Your task to perform on an android device: choose inbox layout in the gmail app Image 0: 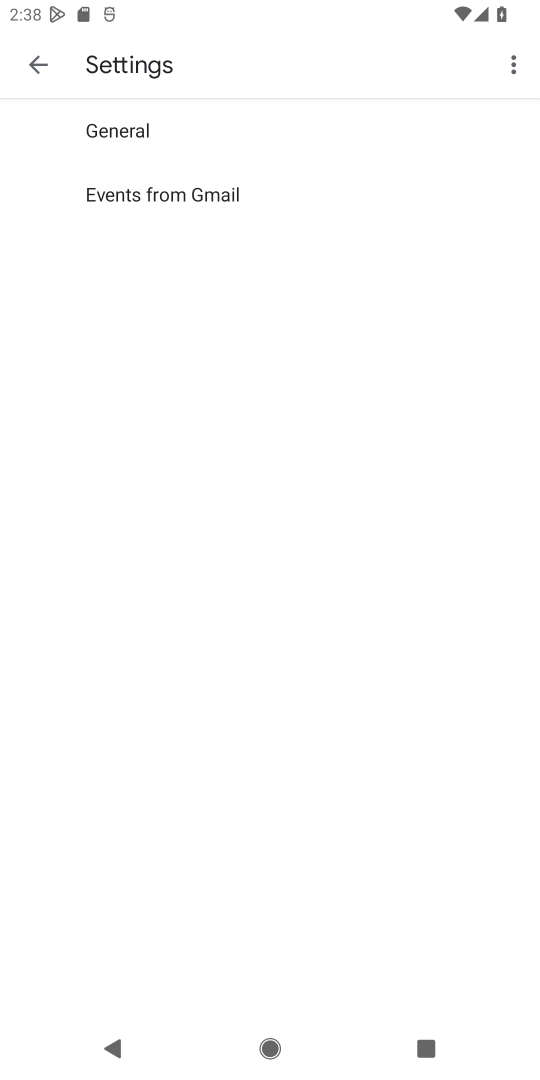
Step 0: press home button
Your task to perform on an android device: choose inbox layout in the gmail app Image 1: 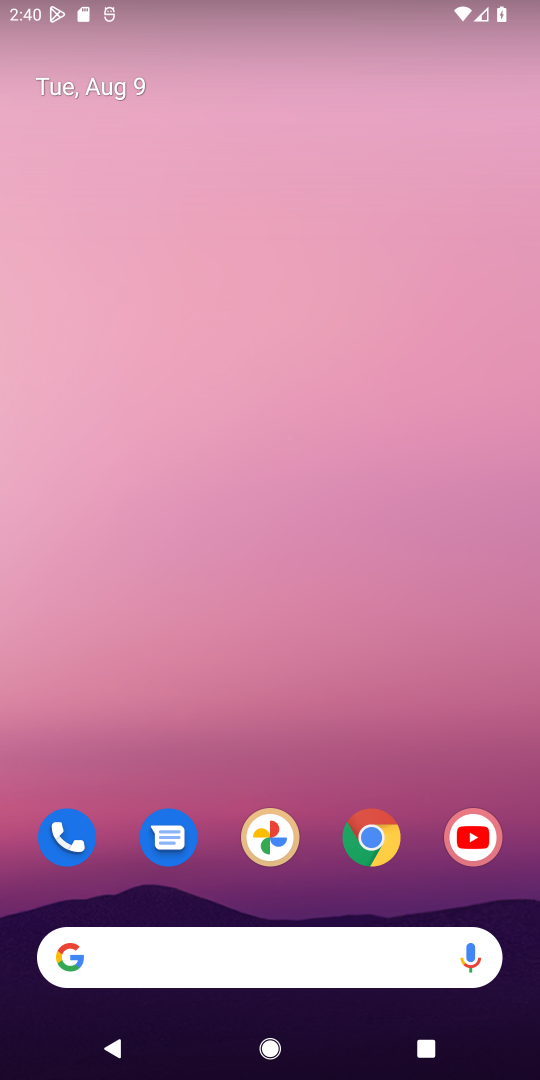
Step 1: drag from (284, 786) to (400, 179)
Your task to perform on an android device: choose inbox layout in the gmail app Image 2: 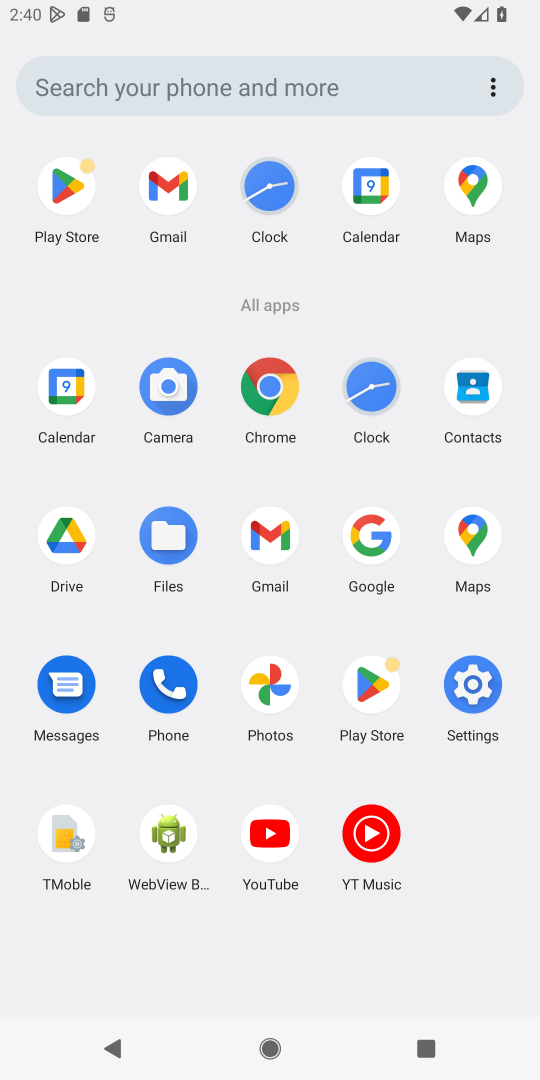
Step 2: click (263, 523)
Your task to perform on an android device: choose inbox layout in the gmail app Image 3: 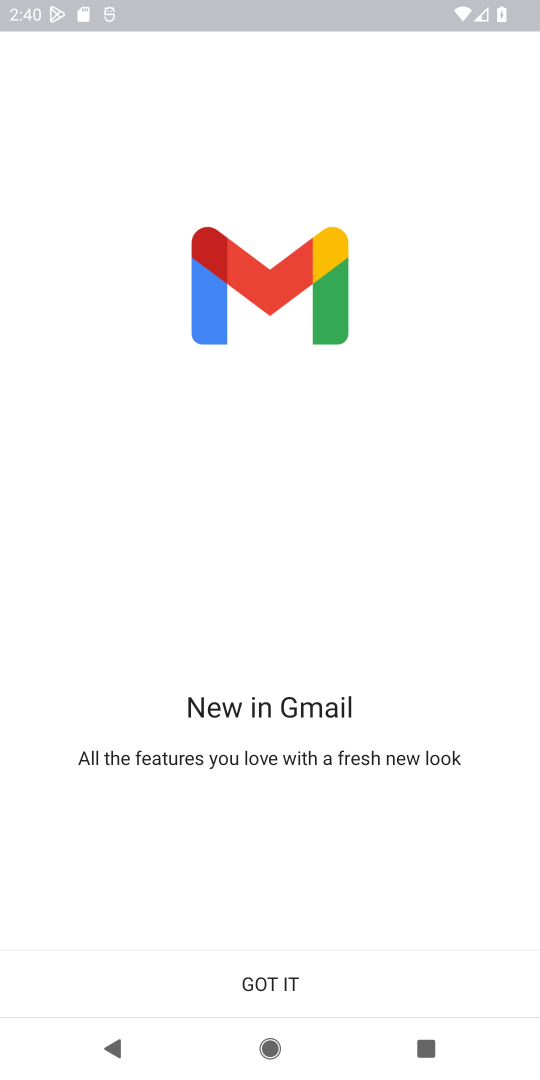
Step 3: click (243, 963)
Your task to perform on an android device: choose inbox layout in the gmail app Image 4: 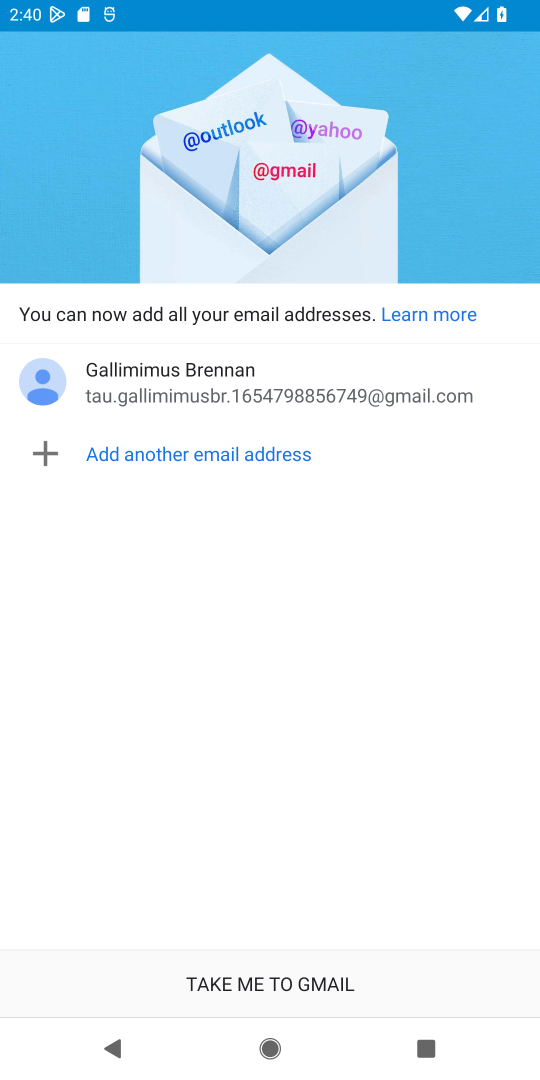
Step 4: click (250, 984)
Your task to perform on an android device: choose inbox layout in the gmail app Image 5: 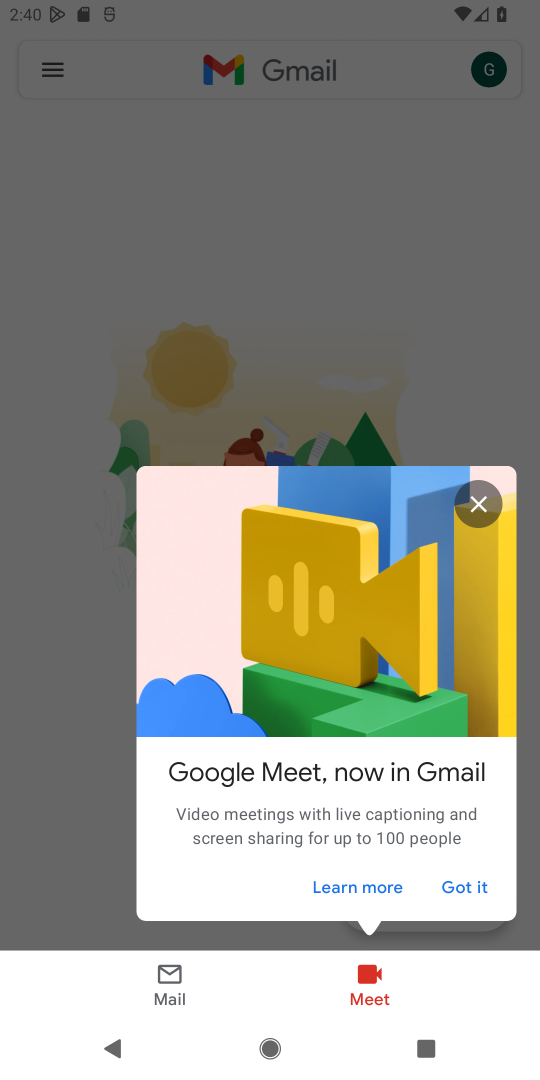
Step 5: click (50, 61)
Your task to perform on an android device: choose inbox layout in the gmail app Image 6: 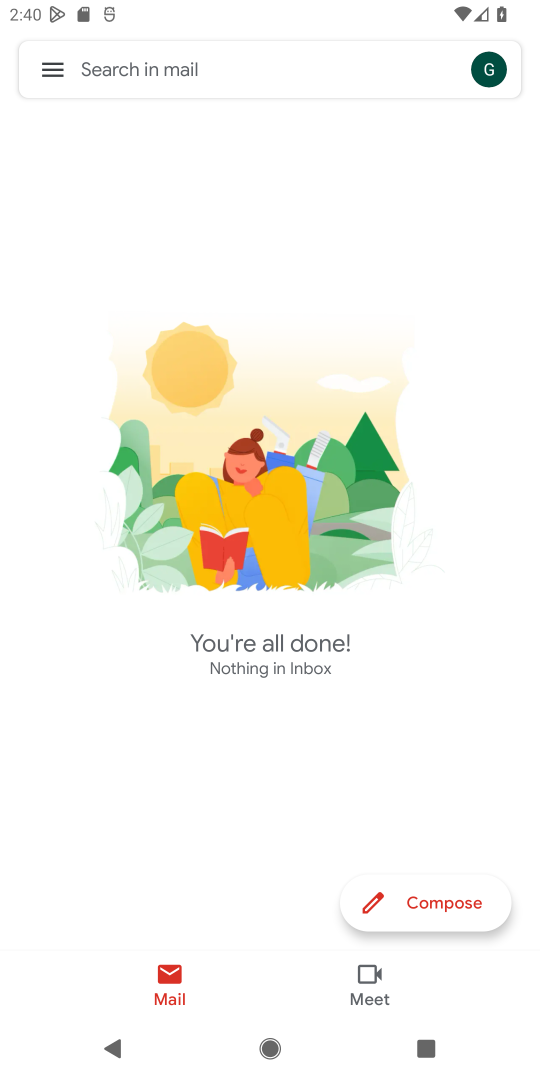
Step 6: click (50, 61)
Your task to perform on an android device: choose inbox layout in the gmail app Image 7: 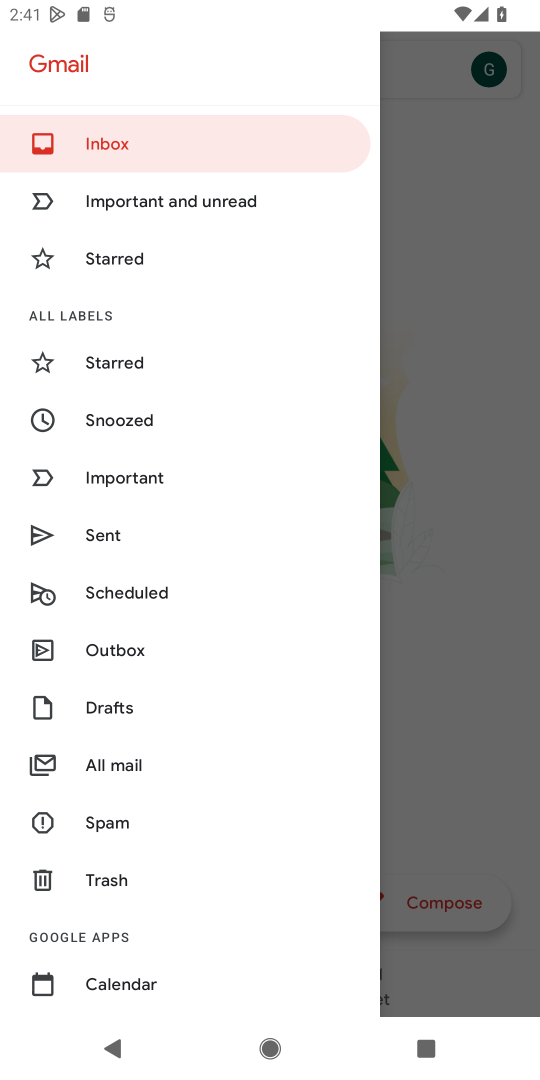
Step 7: drag from (196, 864) to (156, 356)
Your task to perform on an android device: choose inbox layout in the gmail app Image 8: 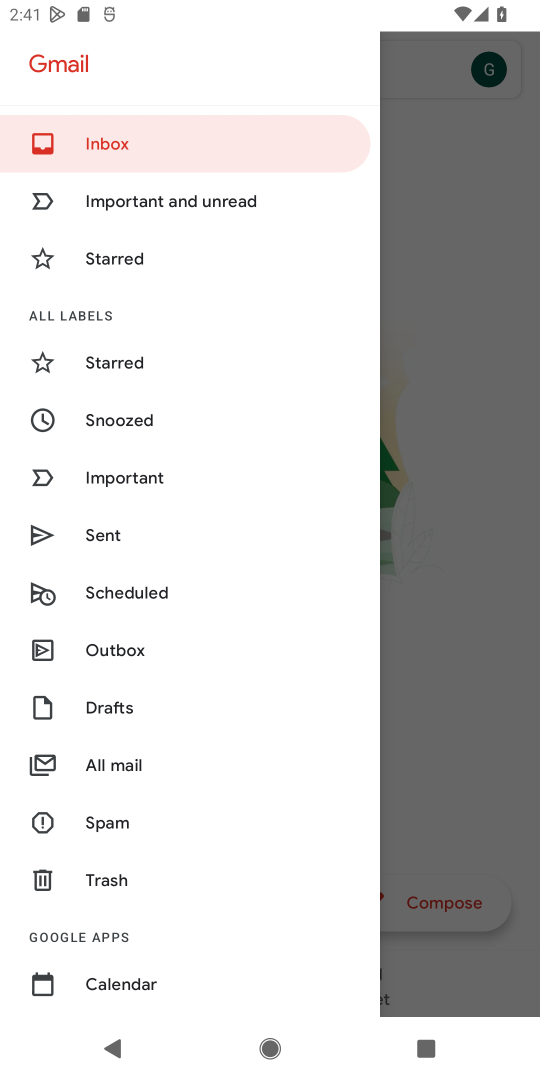
Step 8: drag from (189, 911) to (269, 358)
Your task to perform on an android device: choose inbox layout in the gmail app Image 9: 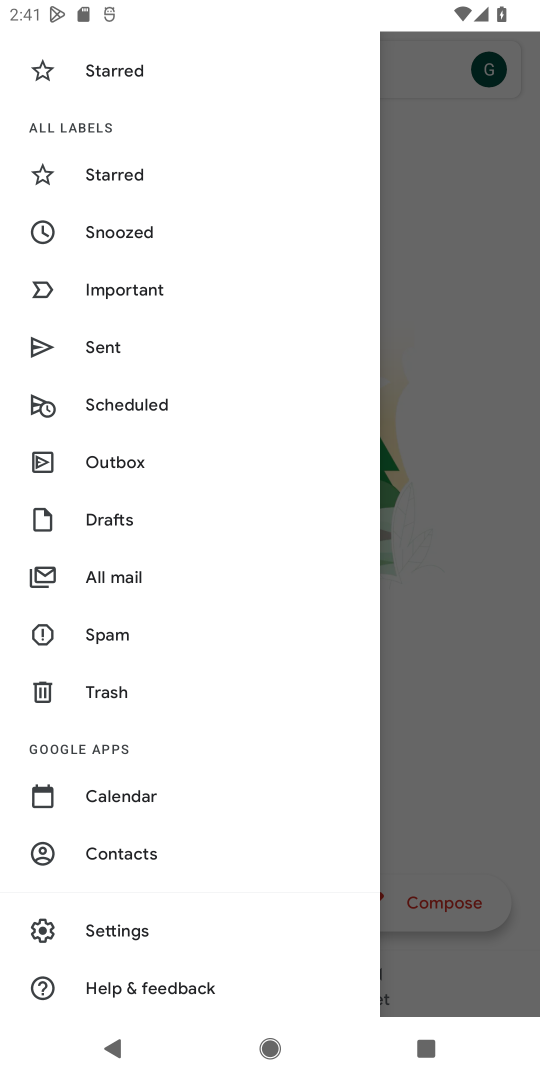
Step 9: click (81, 929)
Your task to perform on an android device: choose inbox layout in the gmail app Image 10: 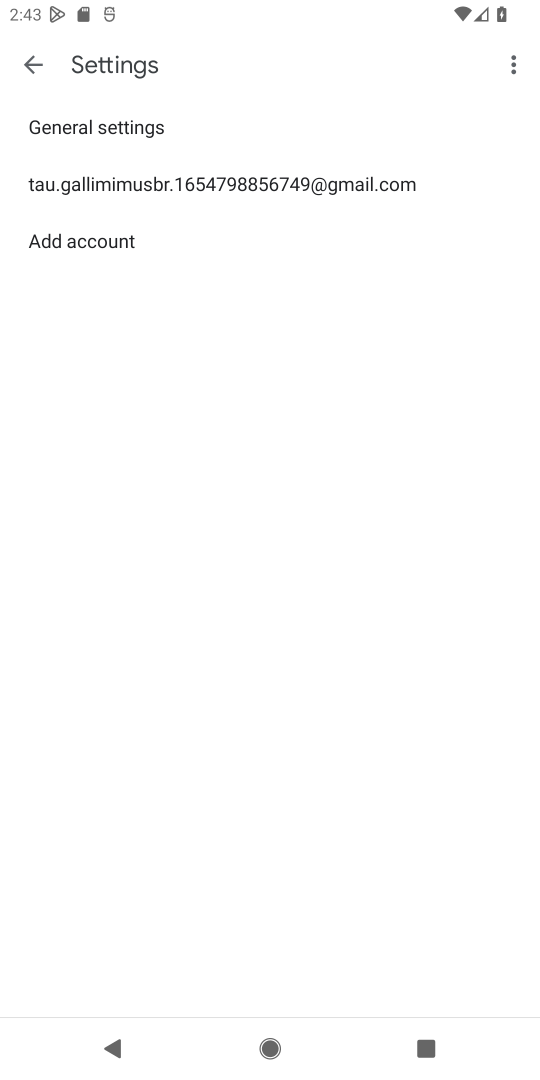
Step 10: click (179, 190)
Your task to perform on an android device: choose inbox layout in the gmail app Image 11: 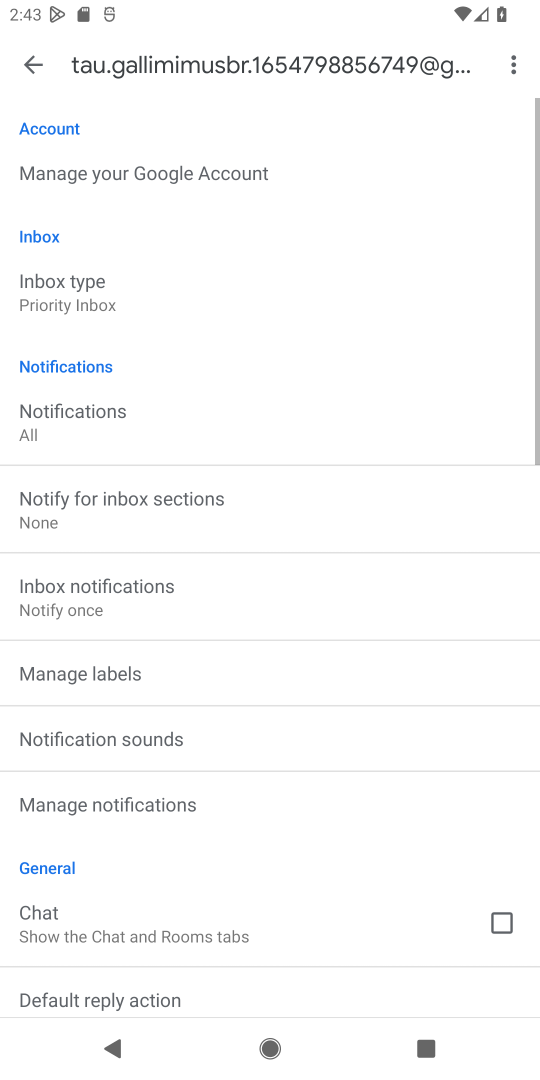
Step 11: click (98, 297)
Your task to perform on an android device: choose inbox layout in the gmail app Image 12: 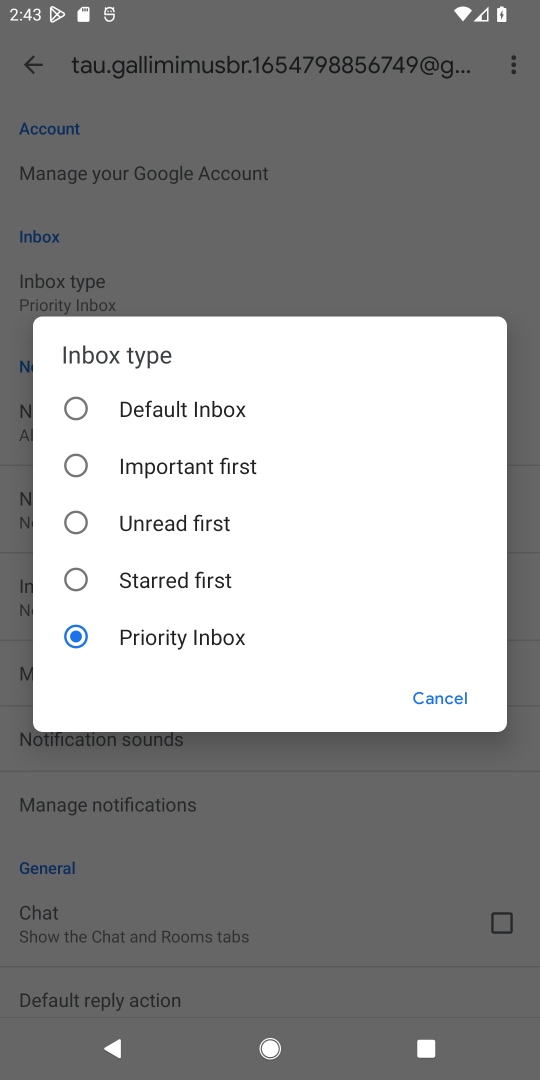
Step 12: click (103, 404)
Your task to perform on an android device: choose inbox layout in the gmail app Image 13: 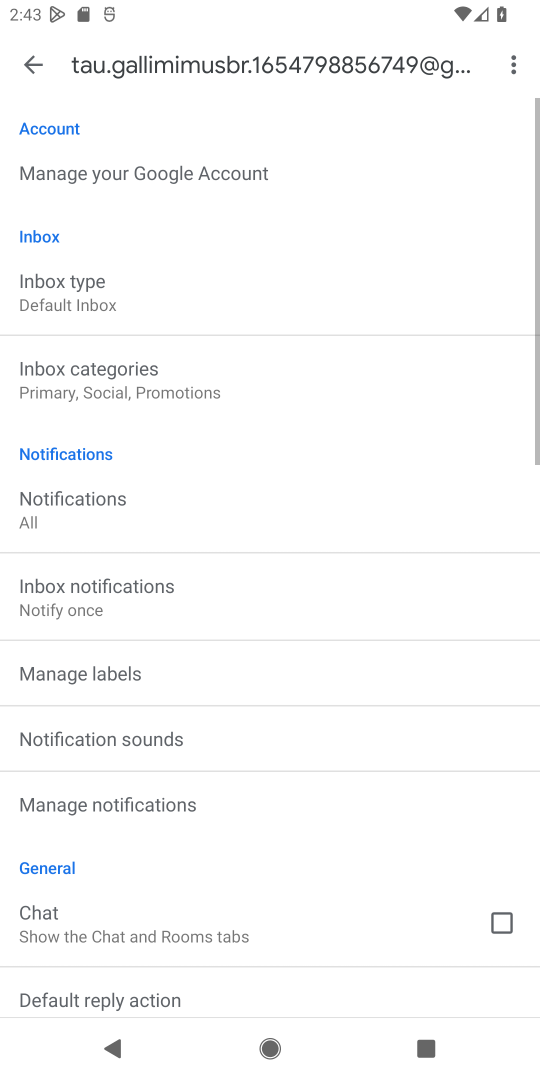
Step 13: task complete